Your task to perform on an android device: read, delete, or share a saved page in the chrome app Image 0: 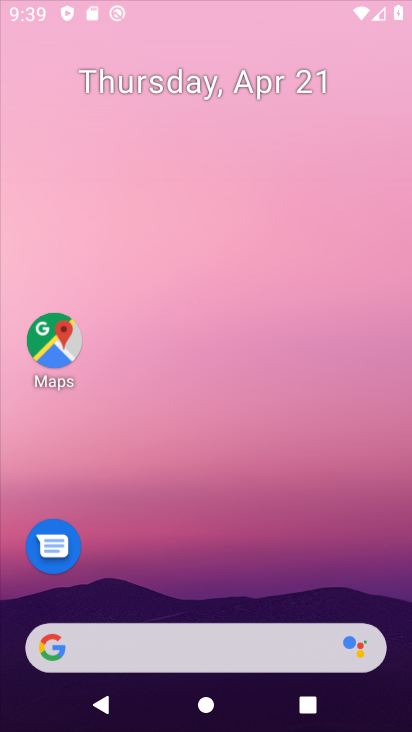
Step 0: click (315, 110)
Your task to perform on an android device: read, delete, or share a saved page in the chrome app Image 1: 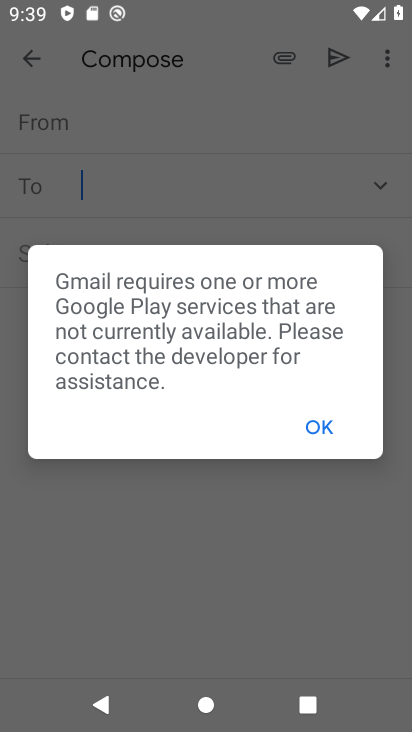
Step 1: press back button
Your task to perform on an android device: read, delete, or share a saved page in the chrome app Image 2: 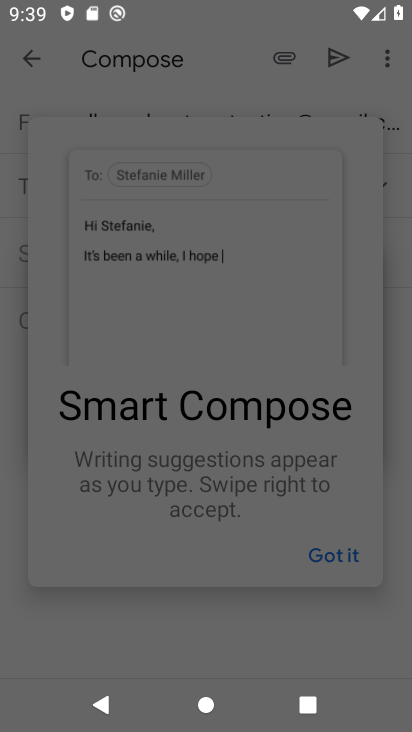
Step 2: press back button
Your task to perform on an android device: read, delete, or share a saved page in the chrome app Image 3: 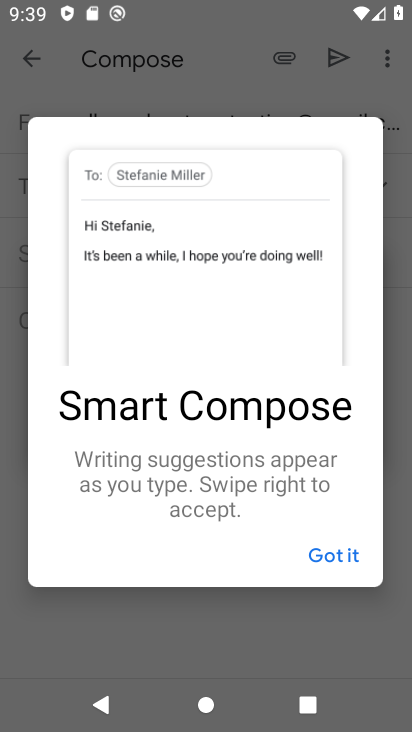
Step 3: press back button
Your task to perform on an android device: read, delete, or share a saved page in the chrome app Image 4: 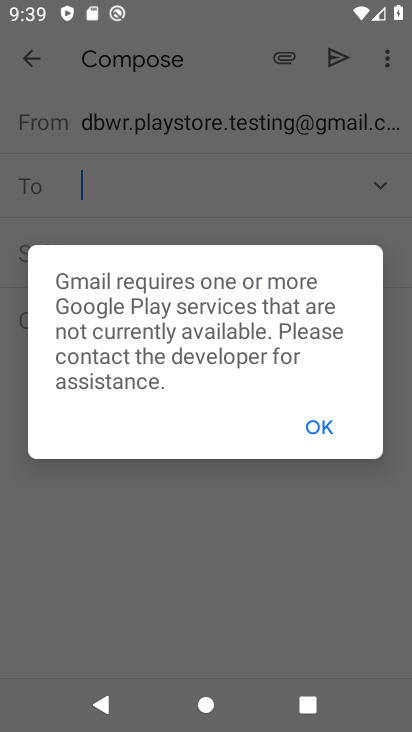
Step 4: click (326, 423)
Your task to perform on an android device: read, delete, or share a saved page in the chrome app Image 5: 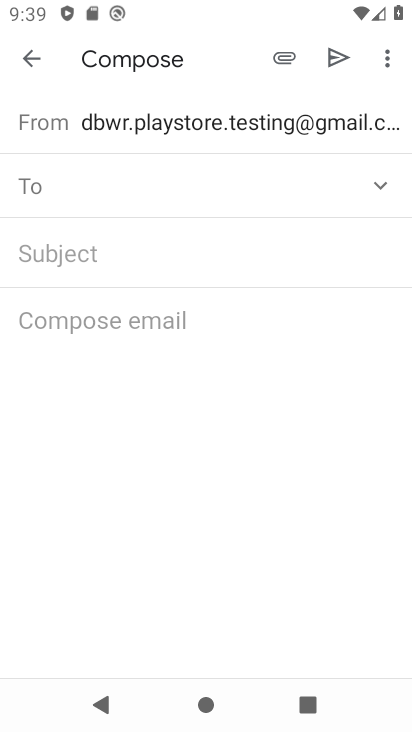
Step 5: press back button
Your task to perform on an android device: read, delete, or share a saved page in the chrome app Image 6: 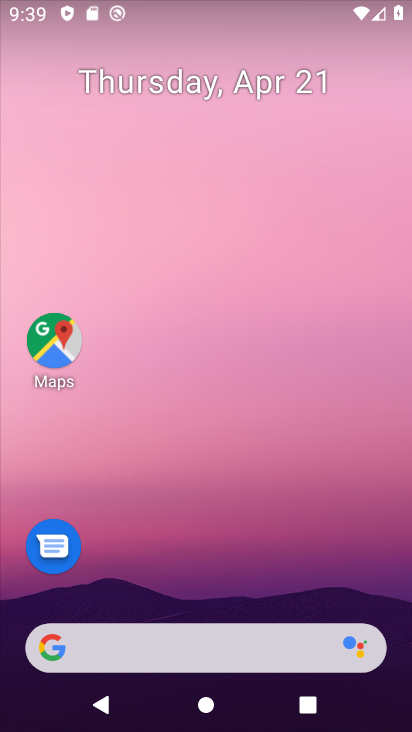
Step 6: drag from (177, 537) to (276, 77)
Your task to perform on an android device: read, delete, or share a saved page in the chrome app Image 7: 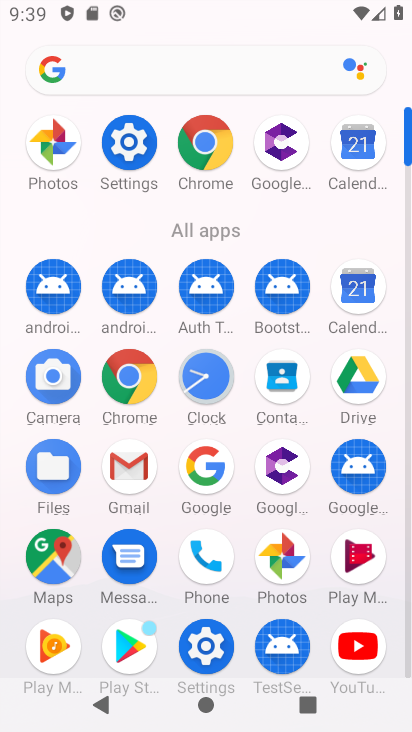
Step 7: click (130, 406)
Your task to perform on an android device: read, delete, or share a saved page in the chrome app Image 8: 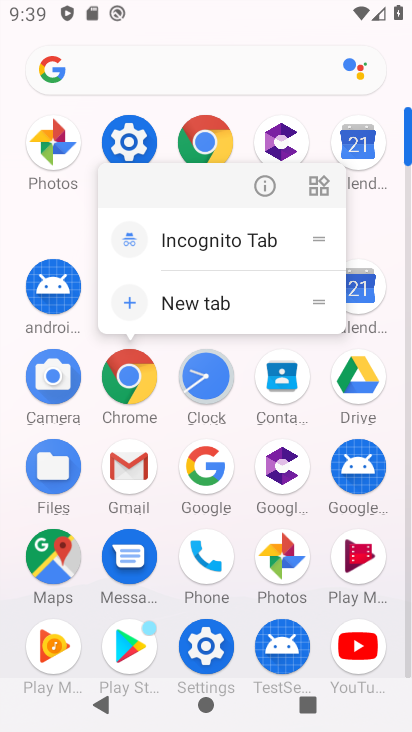
Step 8: click (130, 395)
Your task to perform on an android device: read, delete, or share a saved page in the chrome app Image 9: 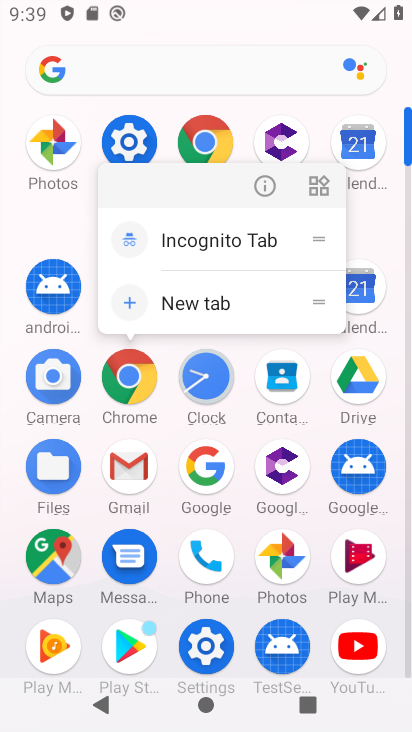
Step 9: click (130, 381)
Your task to perform on an android device: read, delete, or share a saved page in the chrome app Image 10: 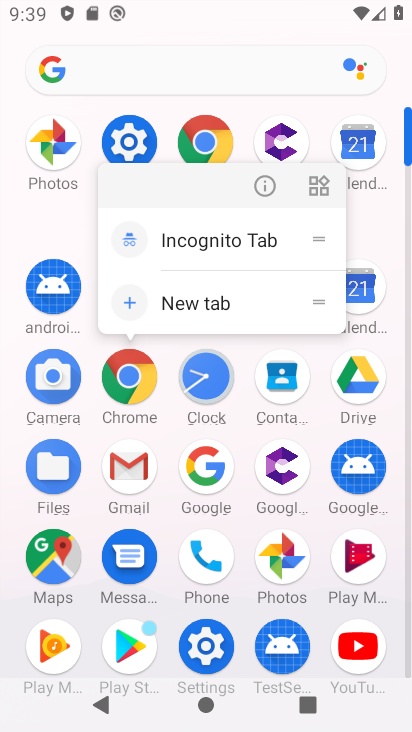
Step 10: click (136, 380)
Your task to perform on an android device: read, delete, or share a saved page in the chrome app Image 11: 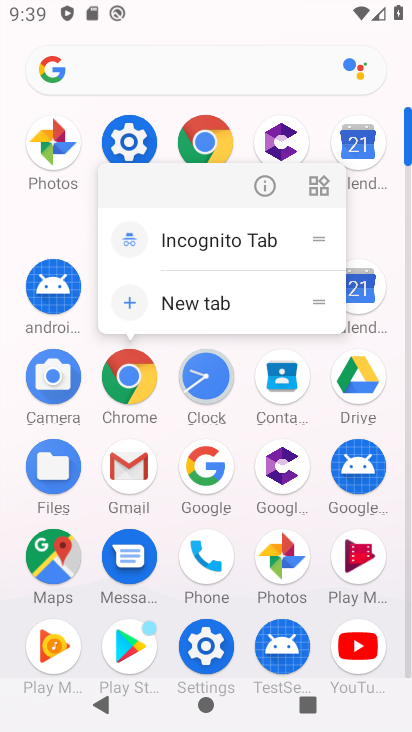
Step 11: click (140, 382)
Your task to perform on an android device: read, delete, or share a saved page in the chrome app Image 12: 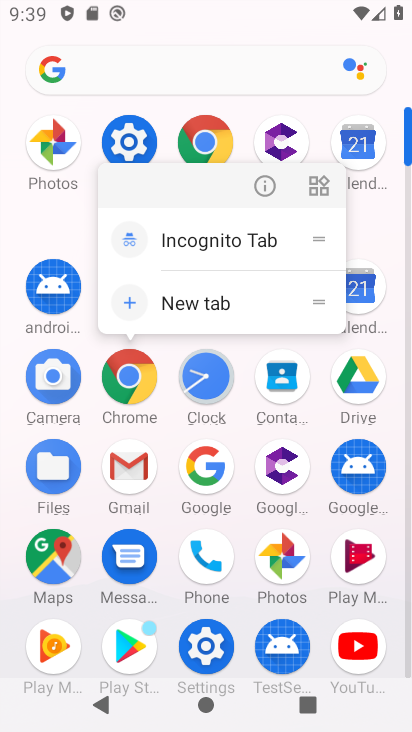
Step 12: click (134, 384)
Your task to perform on an android device: read, delete, or share a saved page in the chrome app Image 13: 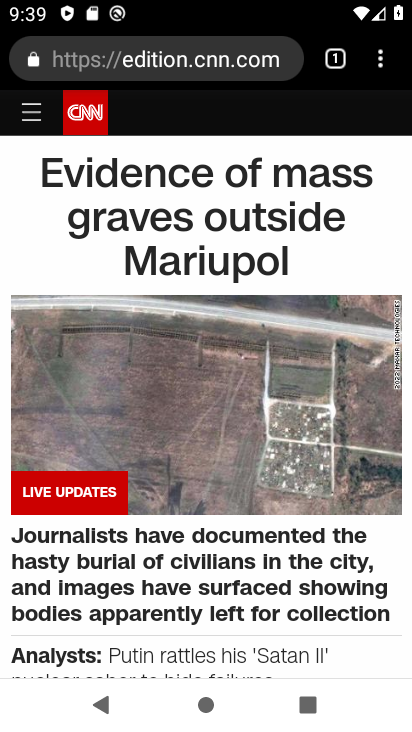
Step 13: drag from (378, 64) to (278, 394)
Your task to perform on an android device: read, delete, or share a saved page in the chrome app Image 14: 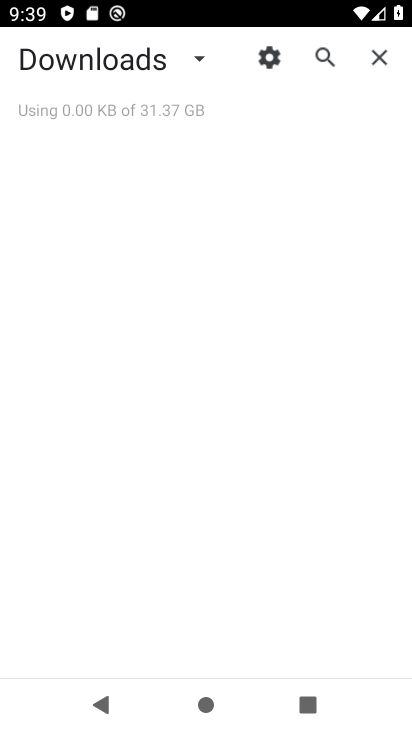
Step 14: click (132, 57)
Your task to perform on an android device: read, delete, or share a saved page in the chrome app Image 15: 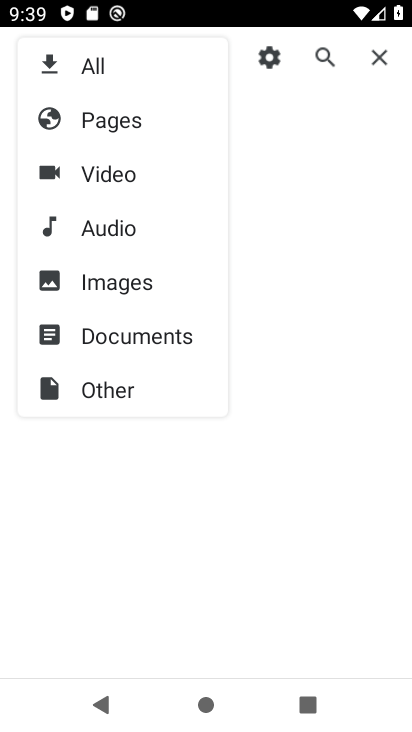
Step 15: click (140, 127)
Your task to perform on an android device: read, delete, or share a saved page in the chrome app Image 16: 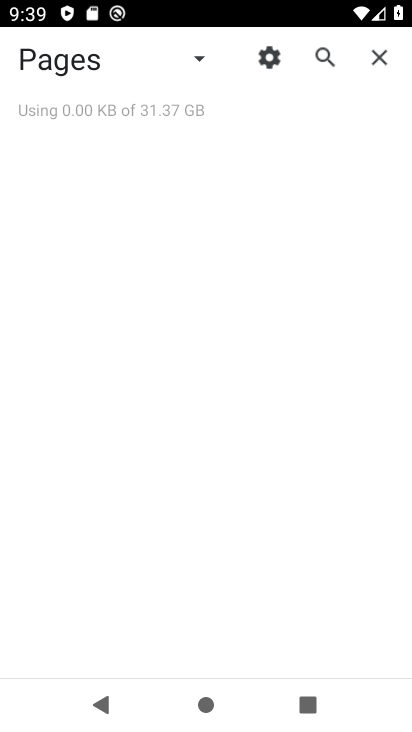
Step 16: task complete